Your task to perform on an android device: change notification settings in the gmail app Image 0: 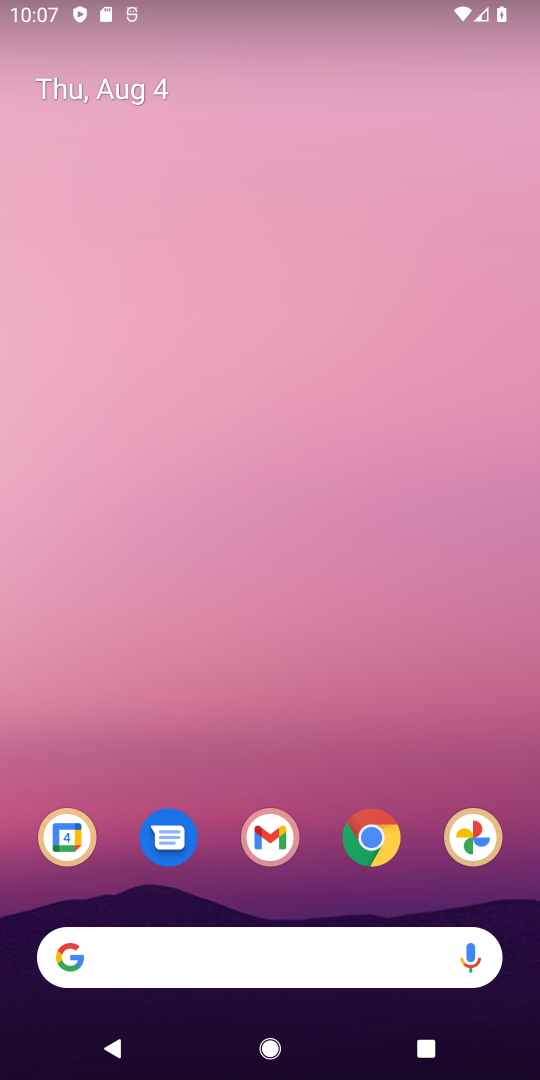
Step 0: press home button
Your task to perform on an android device: change notification settings in the gmail app Image 1: 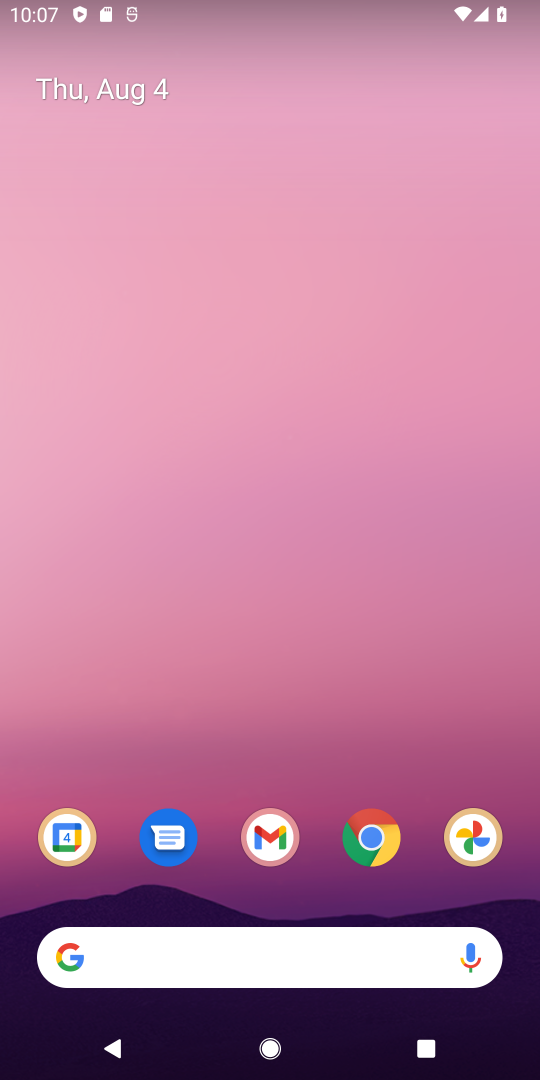
Step 1: click (270, 826)
Your task to perform on an android device: change notification settings in the gmail app Image 2: 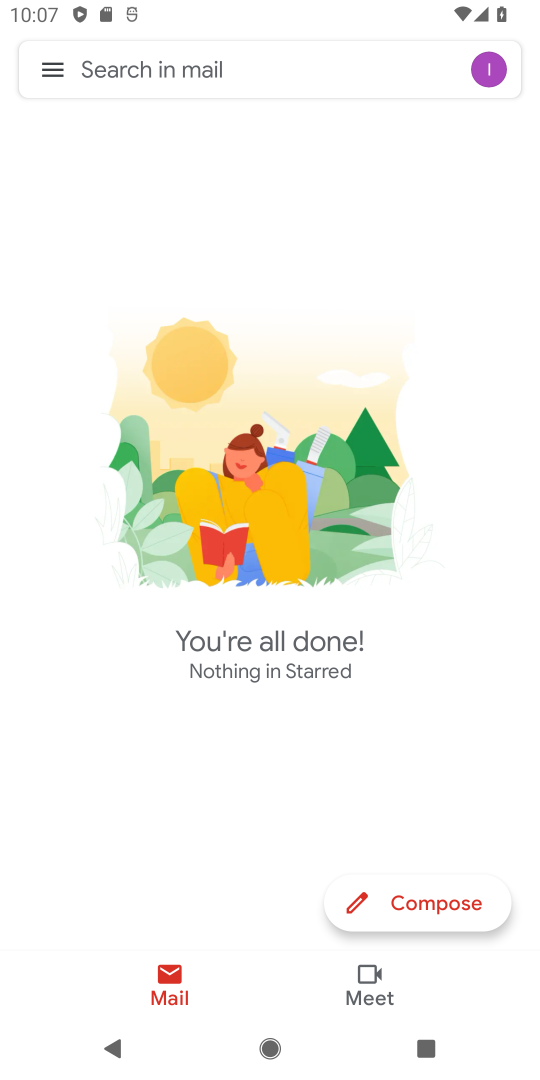
Step 2: click (44, 62)
Your task to perform on an android device: change notification settings in the gmail app Image 3: 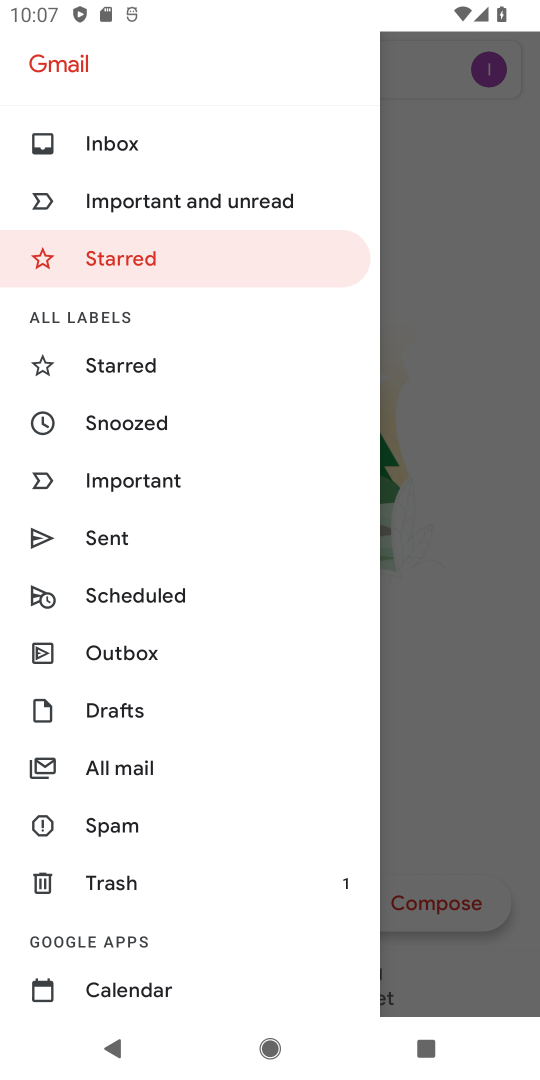
Step 3: drag from (178, 944) to (208, 168)
Your task to perform on an android device: change notification settings in the gmail app Image 4: 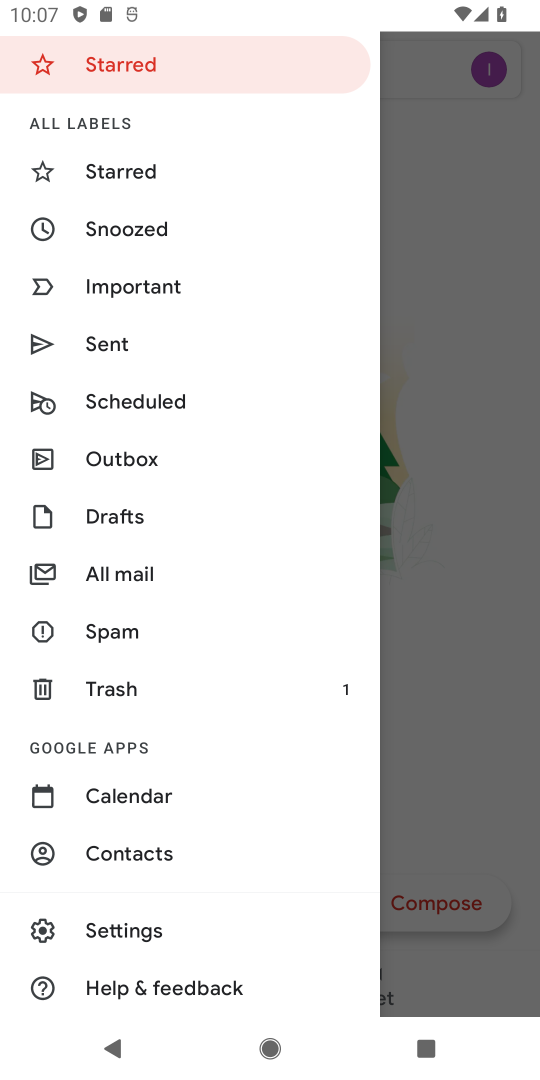
Step 4: click (188, 920)
Your task to perform on an android device: change notification settings in the gmail app Image 5: 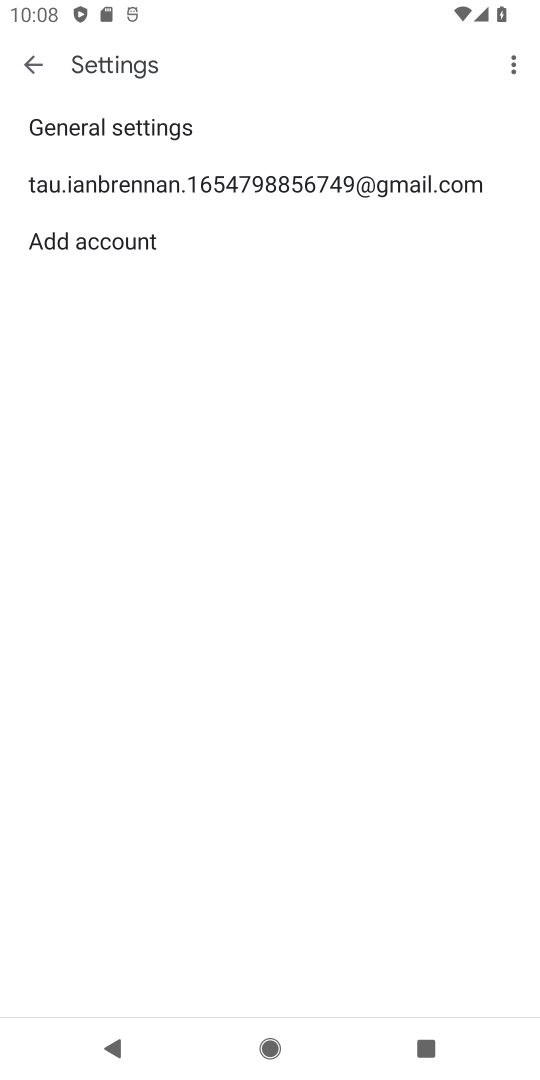
Step 5: click (199, 116)
Your task to perform on an android device: change notification settings in the gmail app Image 6: 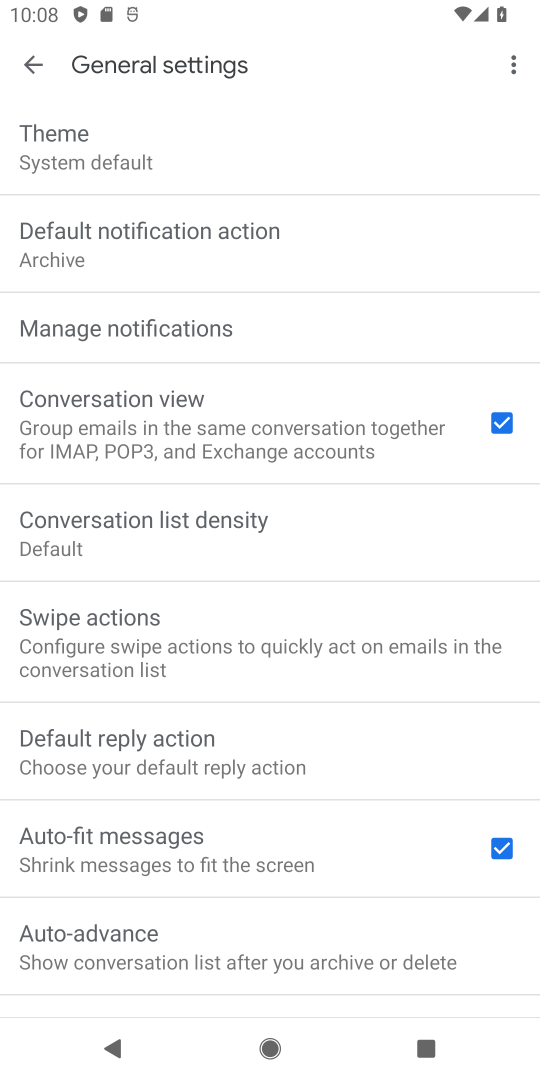
Step 6: click (252, 331)
Your task to perform on an android device: change notification settings in the gmail app Image 7: 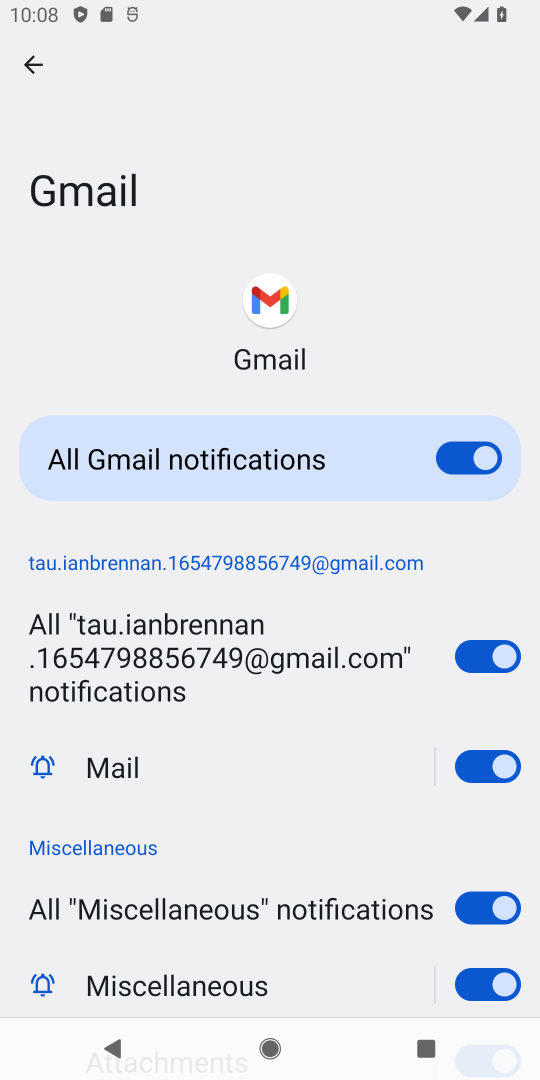
Step 7: click (448, 456)
Your task to perform on an android device: change notification settings in the gmail app Image 8: 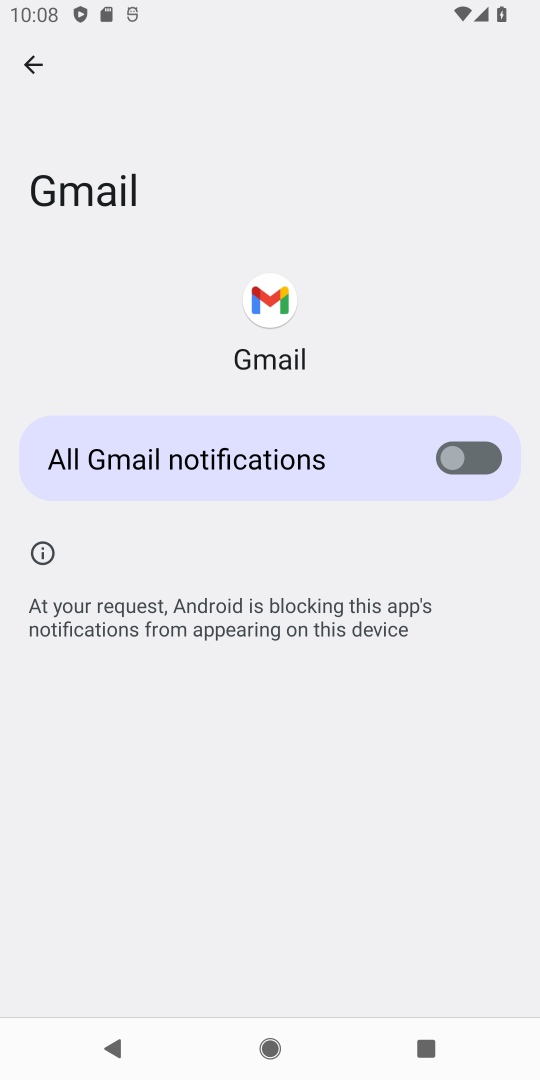
Step 8: task complete